Your task to perform on an android device: Open the phone app and click the voicemail tab. Image 0: 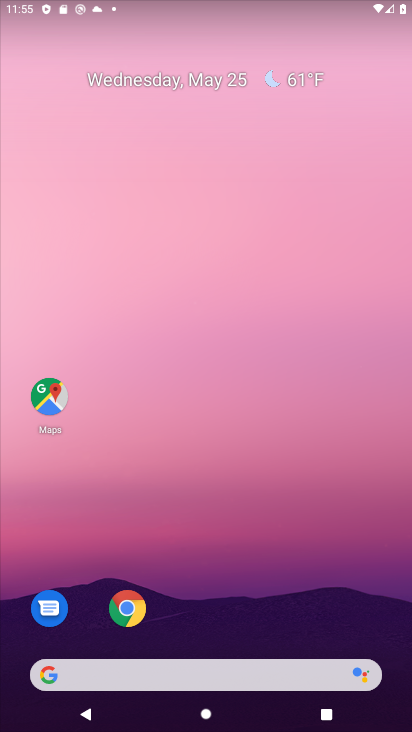
Step 0: drag from (382, 649) to (345, 119)
Your task to perform on an android device: Open the phone app and click the voicemail tab. Image 1: 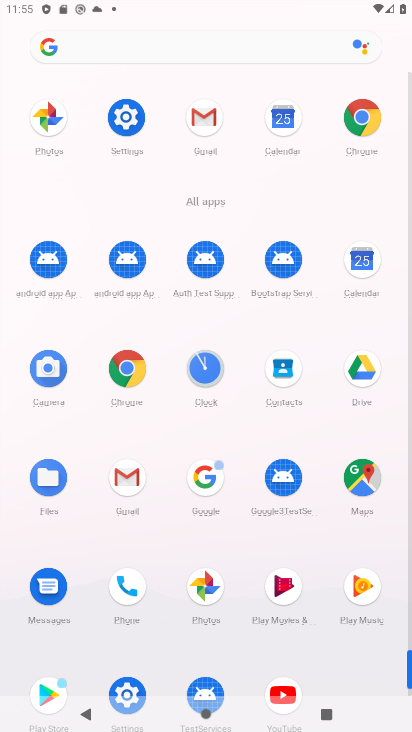
Step 1: click (122, 586)
Your task to perform on an android device: Open the phone app and click the voicemail tab. Image 2: 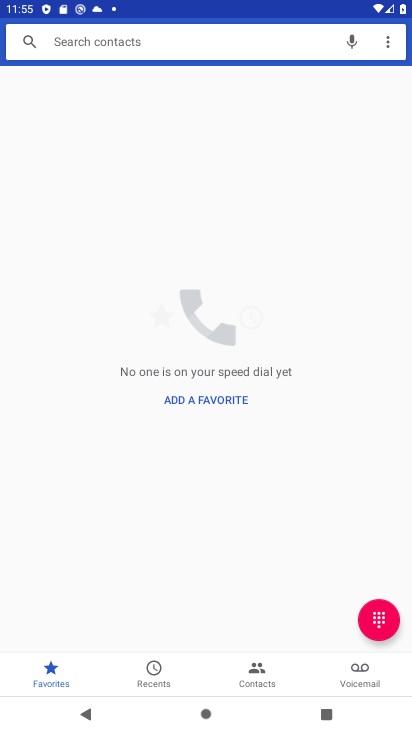
Step 2: click (362, 681)
Your task to perform on an android device: Open the phone app and click the voicemail tab. Image 3: 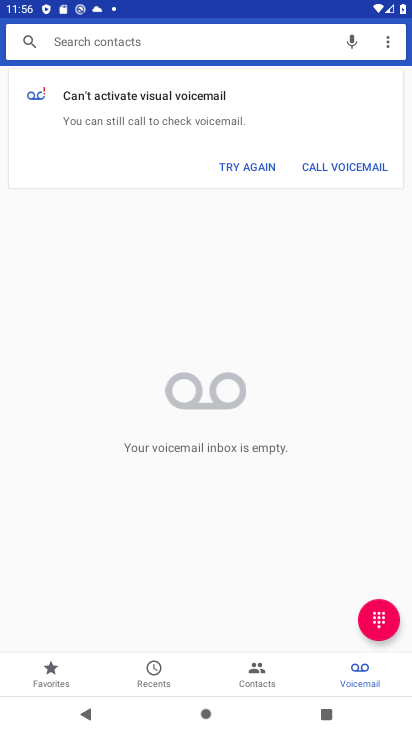
Step 3: task complete